Your task to perform on an android device: Open settings on Google Maps Image 0: 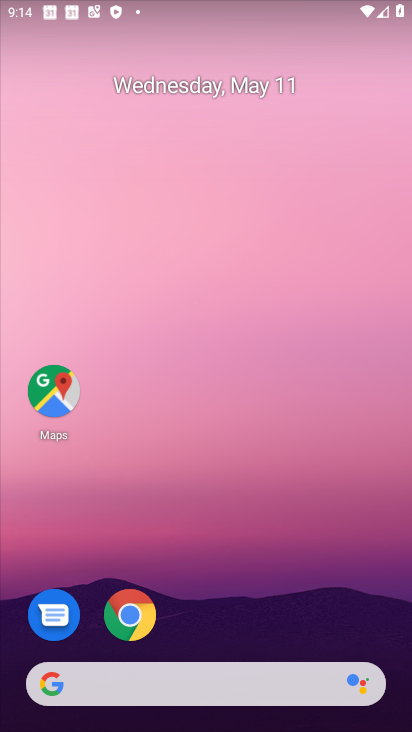
Step 0: click (51, 387)
Your task to perform on an android device: Open settings on Google Maps Image 1: 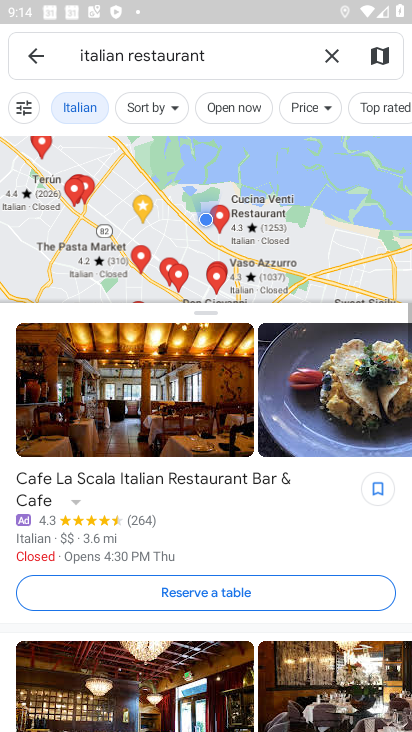
Step 1: click (326, 59)
Your task to perform on an android device: Open settings on Google Maps Image 2: 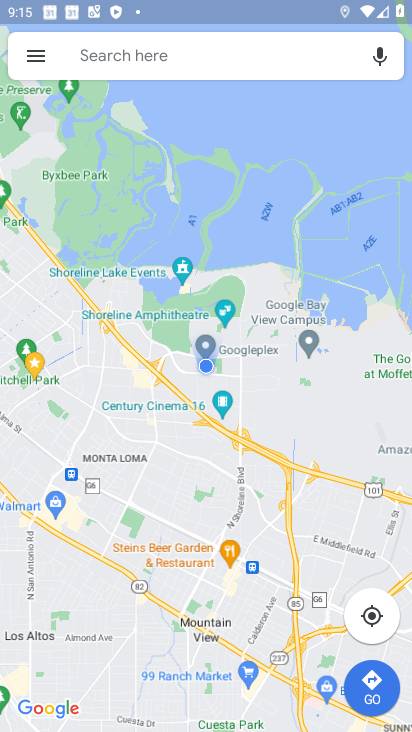
Step 2: task complete